Your task to perform on an android device: turn off notifications settings in the gmail app Image 0: 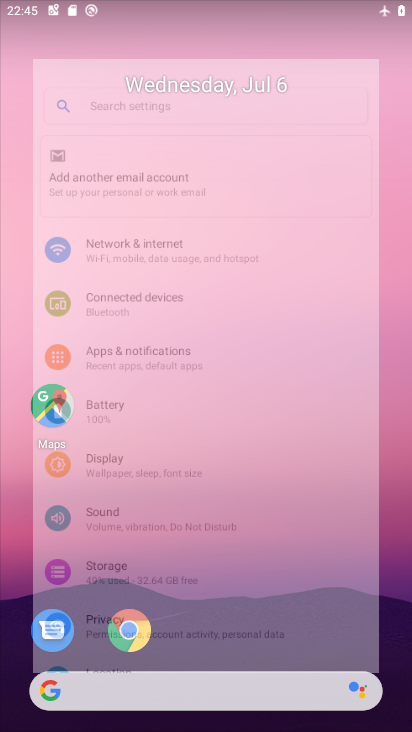
Step 0: drag from (207, 564) to (258, 111)
Your task to perform on an android device: turn off notifications settings in the gmail app Image 1: 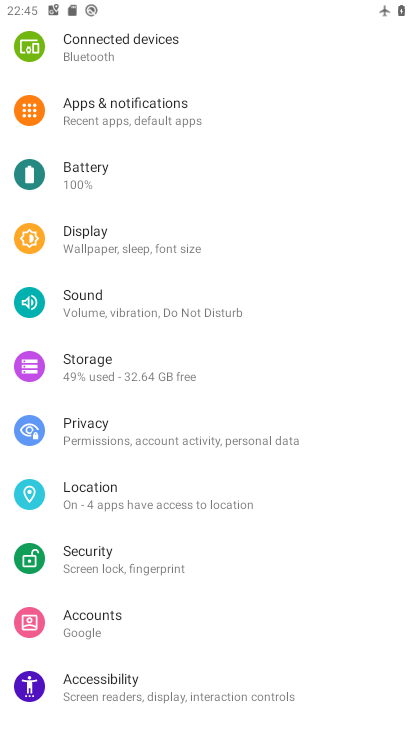
Step 1: press home button
Your task to perform on an android device: turn off notifications settings in the gmail app Image 2: 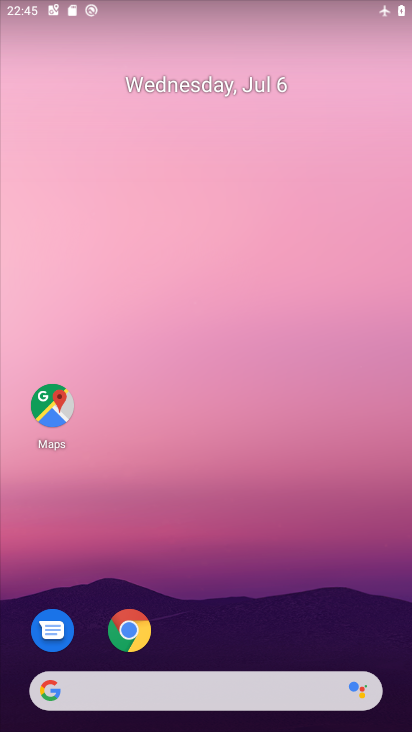
Step 2: drag from (188, 632) to (255, 168)
Your task to perform on an android device: turn off notifications settings in the gmail app Image 3: 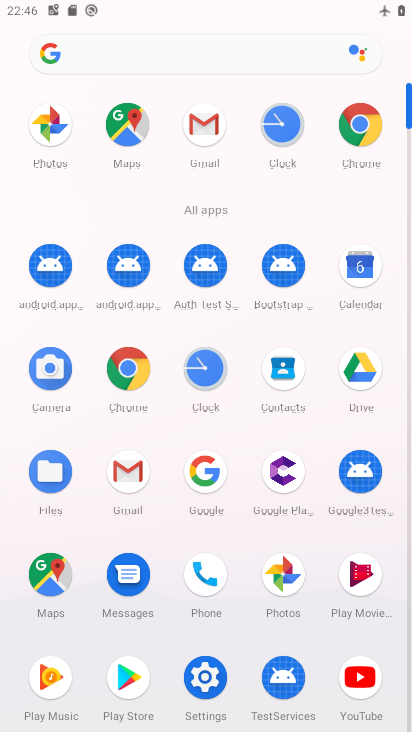
Step 3: click (203, 112)
Your task to perform on an android device: turn off notifications settings in the gmail app Image 4: 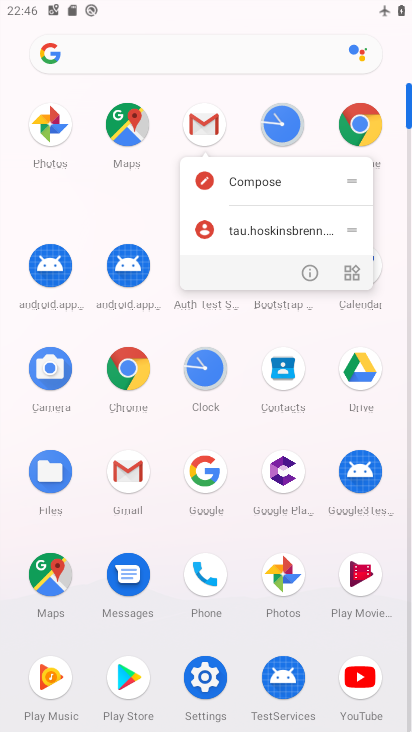
Step 4: click (306, 266)
Your task to perform on an android device: turn off notifications settings in the gmail app Image 5: 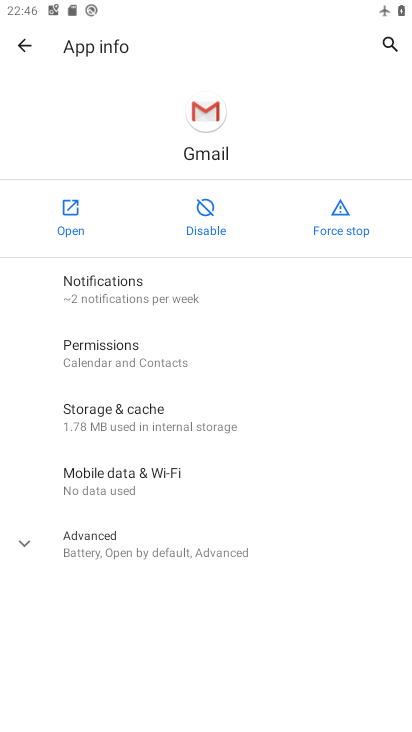
Step 5: click (68, 225)
Your task to perform on an android device: turn off notifications settings in the gmail app Image 6: 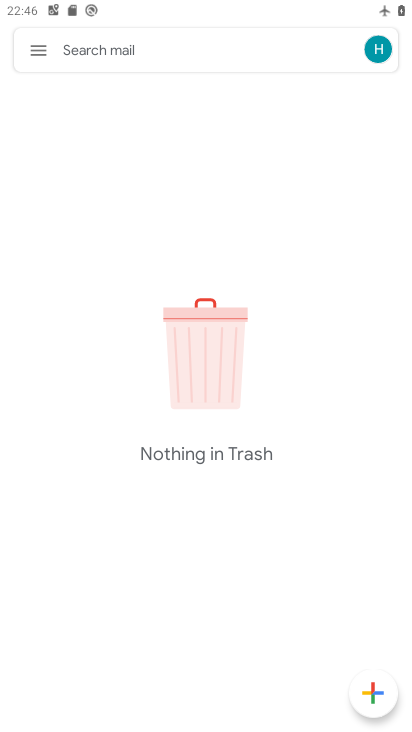
Step 6: drag from (233, 377) to (311, 183)
Your task to perform on an android device: turn off notifications settings in the gmail app Image 7: 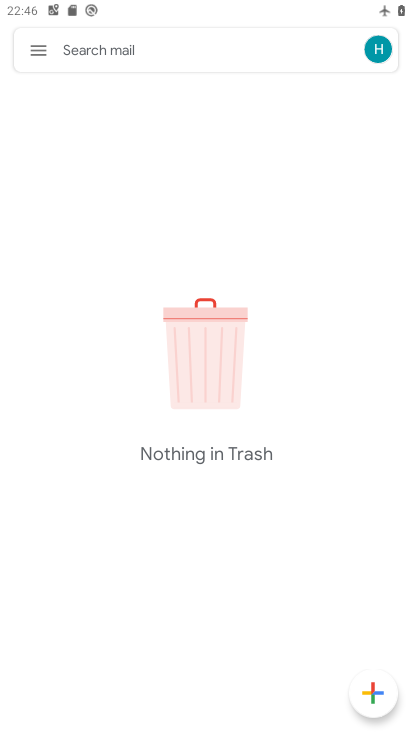
Step 7: drag from (143, 461) to (203, 217)
Your task to perform on an android device: turn off notifications settings in the gmail app Image 8: 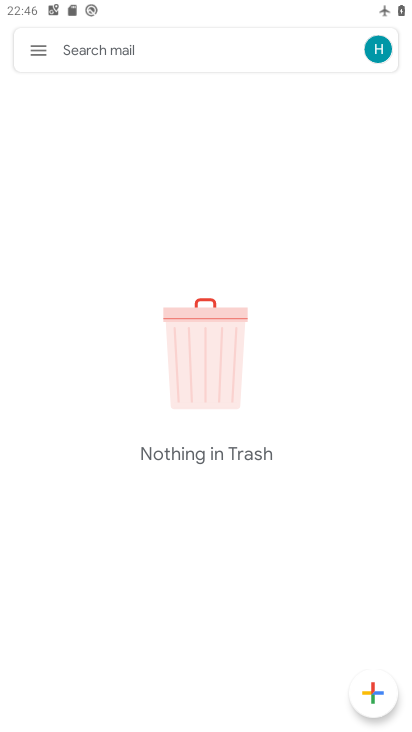
Step 8: click (52, 54)
Your task to perform on an android device: turn off notifications settings in the gmail app Image 9: 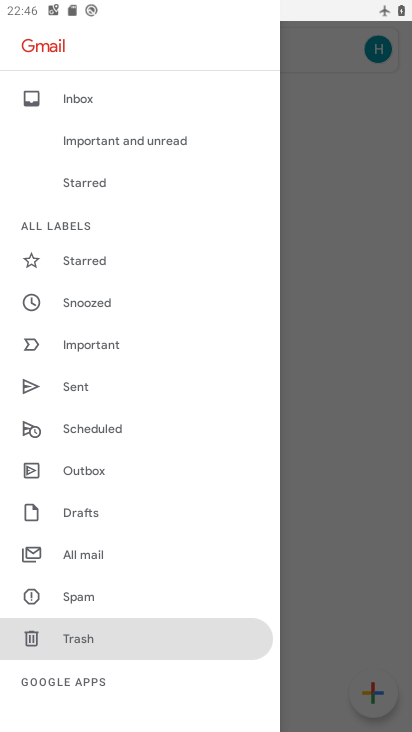
Step 9: click (184, 204)
Your task to perform on an android device: turn off notifications settings in the gmail app Image 10: 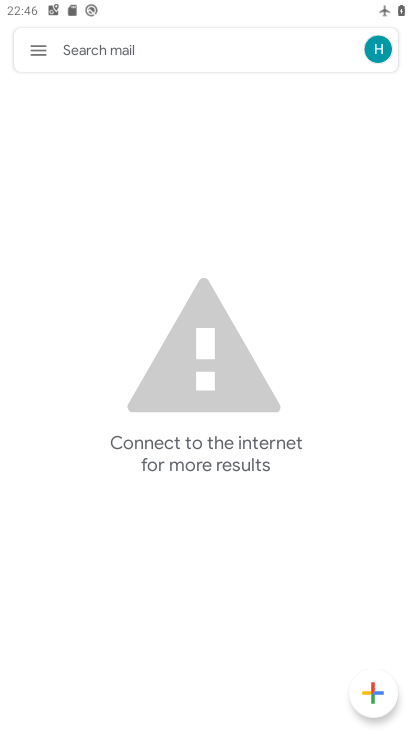
Step 10: drag from (142, 452) to (170, 141)
Your task to perform on an android device: turn off notifications settings in the gmail app Image 11: 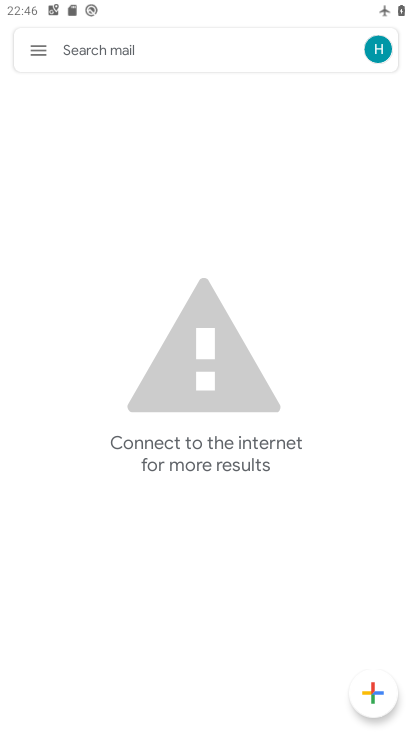
Step 11: click (38, 53)
Your task to perform on an android device: turn off notifications settings in the gmail app Image 12: 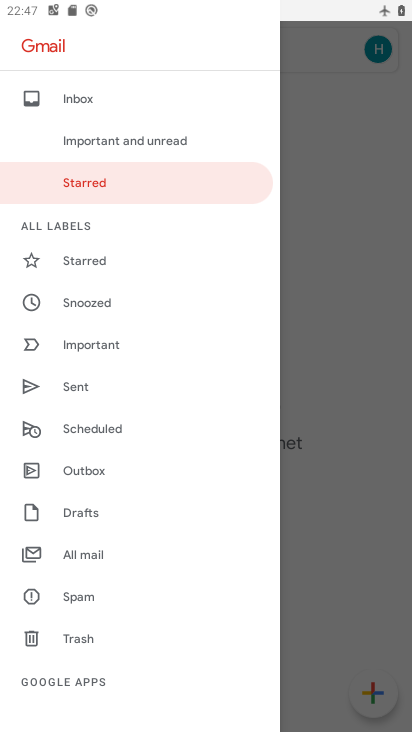
Step 12: drag from (136, 347) to (201, 112)
Your task to perform on an android device: turn off notifications settings in the gmail app Image 13: 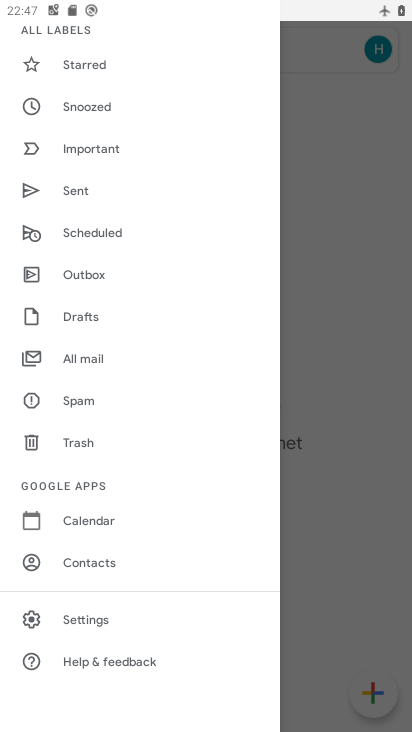
Step 13: drag from (106, 552) to (224, 289)
Your task to perform on an android device: turn off notifications settings in the gmail app Image 14: 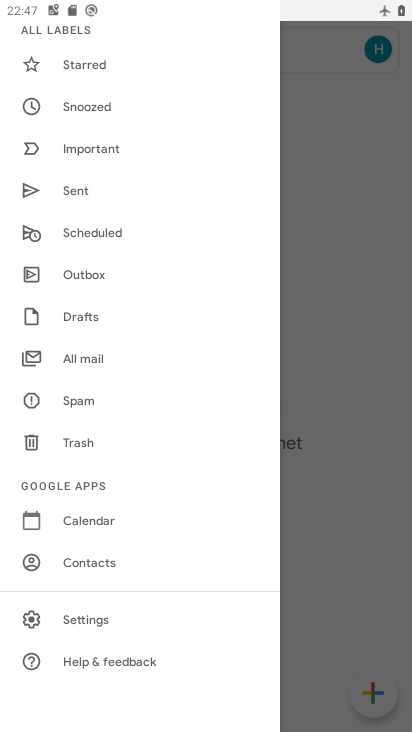
Step 14: click (77, 625)
Your task to perform on an android device: turn off notifications settings in the gmail app Image 15: 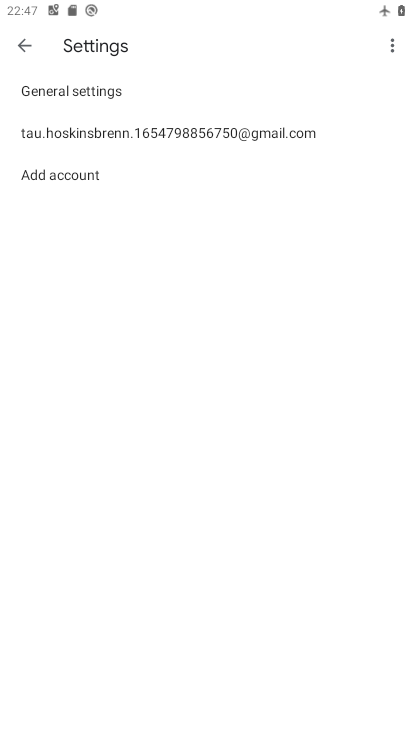
Step 15: click (86, 138)
Your task to perform on an android device: turn off notifications settings in the gmail app Image 16: 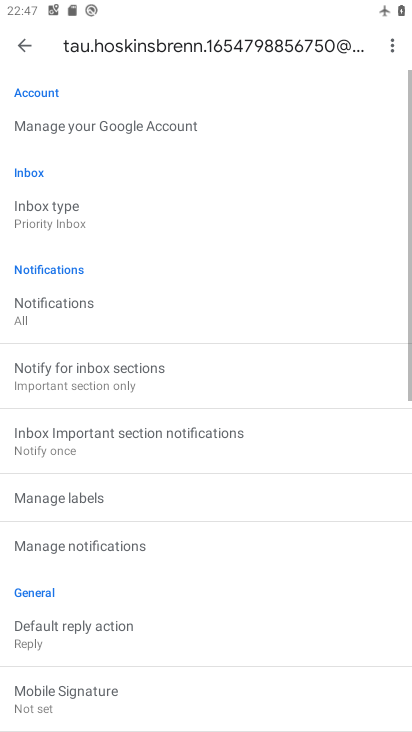
Step 16: drag from (190, 622) to (213, 256)
Your task to perform on an android device: turn off notifications settings in the gmail app Image 17: 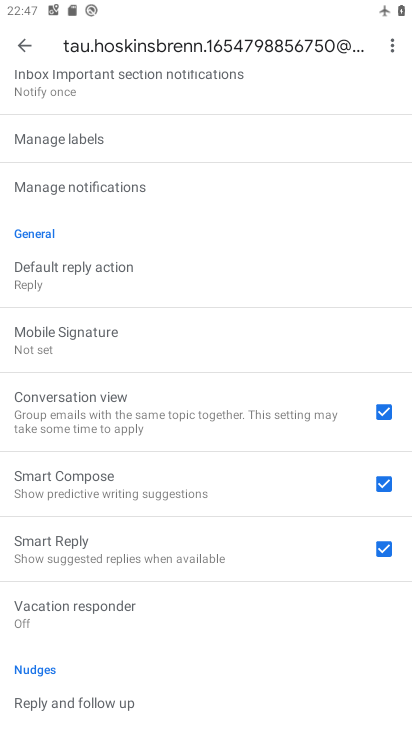
Step 17: drag from (169, 227) to (293, 602)
Your task to perform on an android device: turn off notifications settings in the gmail app Image 18: 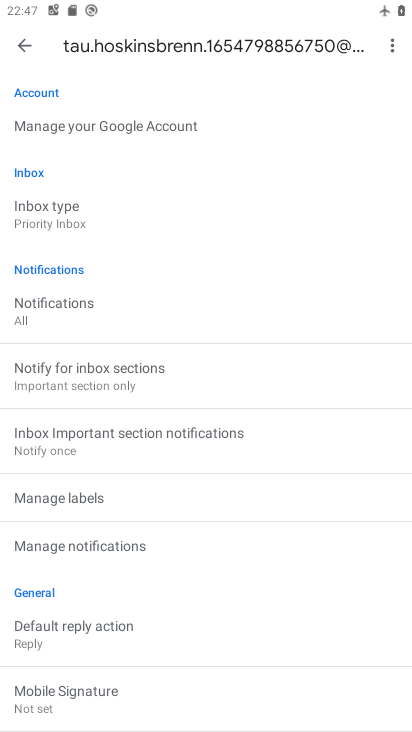
Step 18: click (101, 558)
Your task to perform on an android device: turn off notifications settings in the gmail app Image 19: 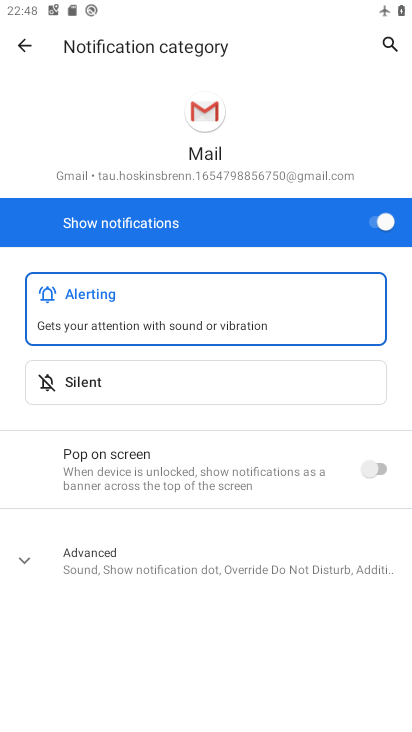
Step 19: drag from (229, 565) to (264, 315)
Your task to perform on an android device: turn off notifications settings in the gmail app Image 20: 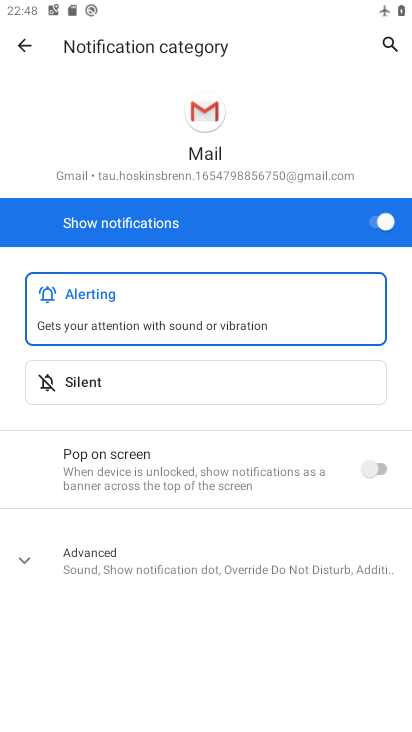
Step 20: click (366, 223)
Your task to perform on an android device: turn off notifications settings in the gmail app Image 21: 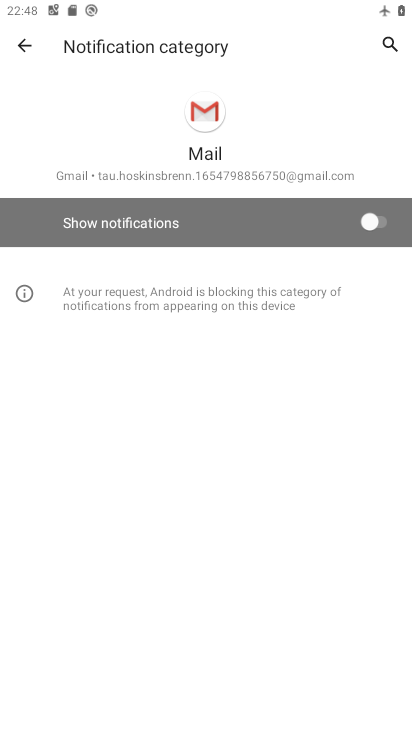
Step 21: task complete